Your task to perform on an android device: Open the calendar app, open the side menu, and click the "Day" option Image 0: 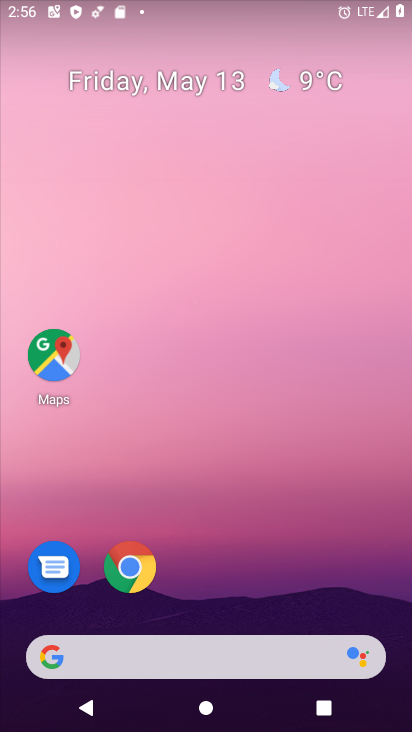
Step 0: drag from (236, 582) to (240, 281)
Your task to perform on an android device: Open the calendar app, open the side menu, and click the "Day" option Image 1: 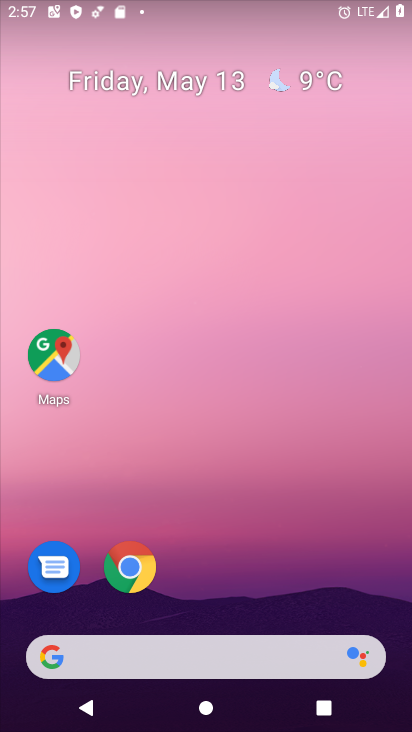
Step 1: drag from (212, 600) to (343, 67)
Your task to perform on an android device: Open the calendar app, open the side menu, and click the "Day" option Image 2: 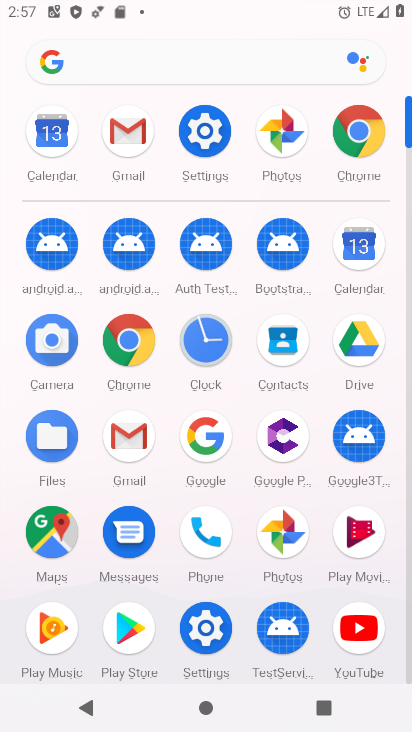
Step 2: click (360, 269)
Your task to perform on an android device: Open the calendar app, open the side menu, and click the "Day" option Image 3: 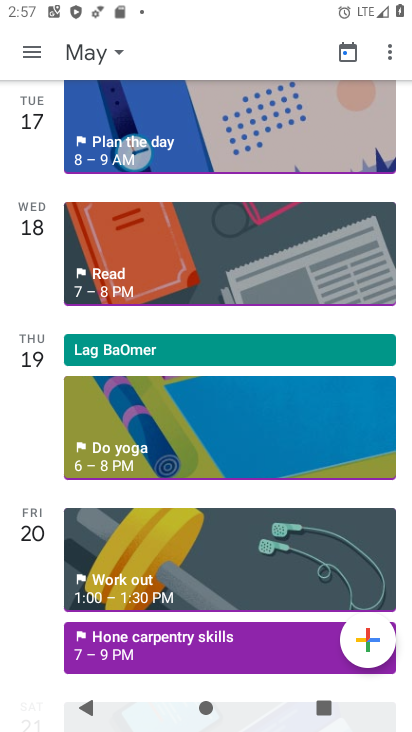
Step 3: click (24, 47)
Your task to perform on an android device: Open the calendar app, open the side menu, and click the "Day" option Image 4: 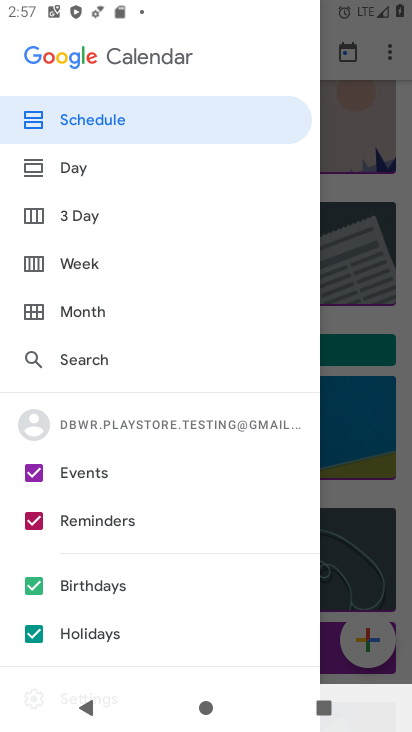
Step 4: click (81, 173)
Your task to perform on an android device: Open the calendar app, open the side menu, and click the "Day" option Image 5: 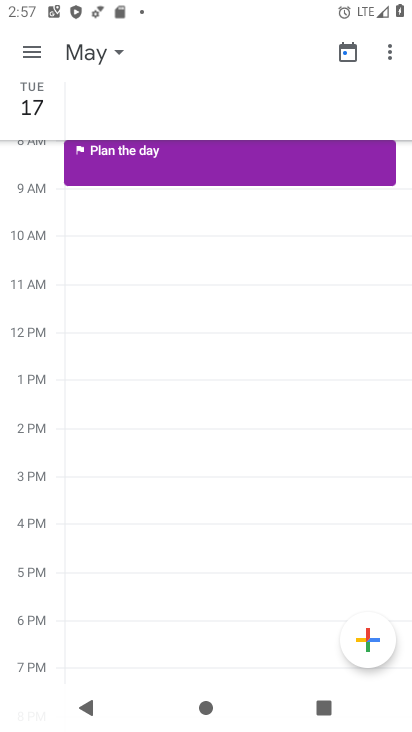
Step 5: task complete